Your task to perform on an android device: install app "NewsBreak: Local News & Alerts" Image 0: 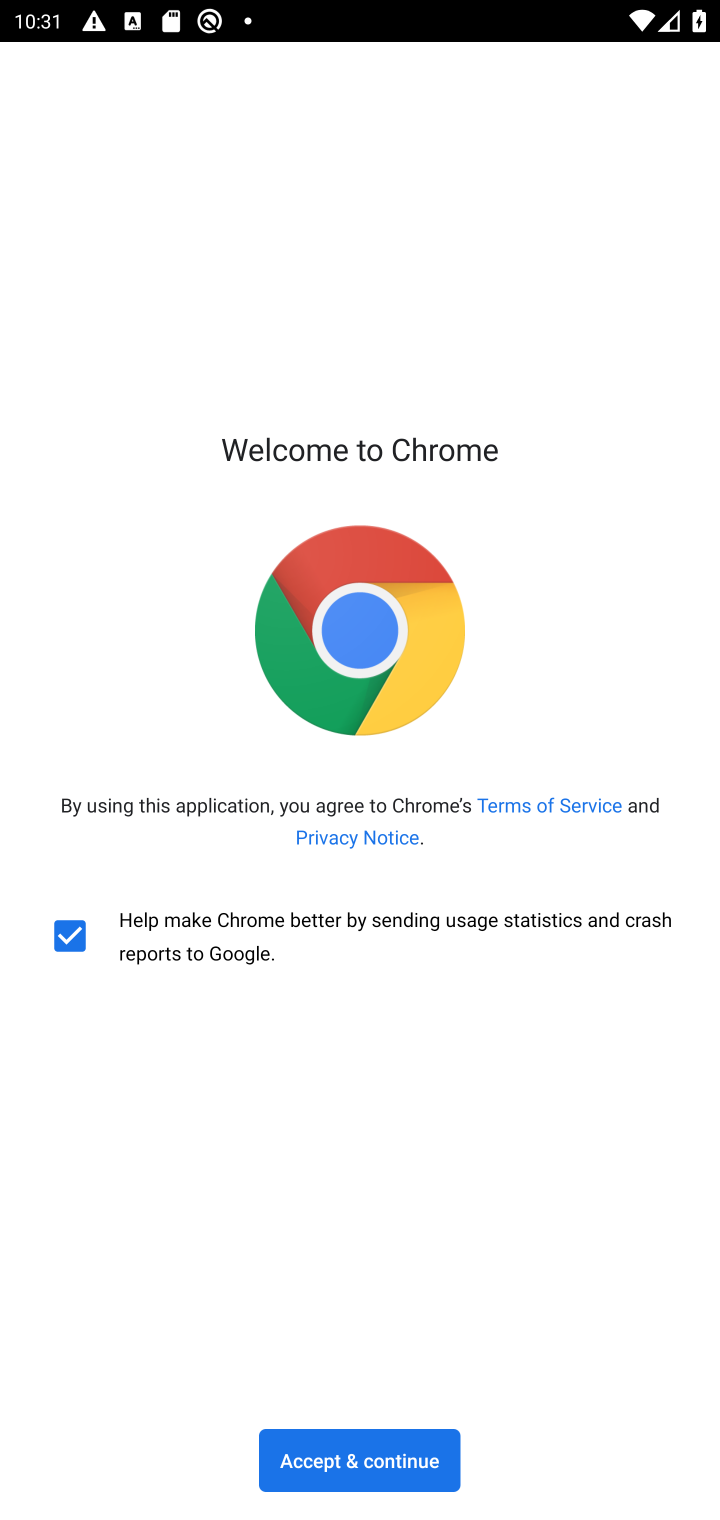
Step 0: press home button
Your task to perform on an android device: install app "NewsBreak: Local News & Alerts" Image 1: 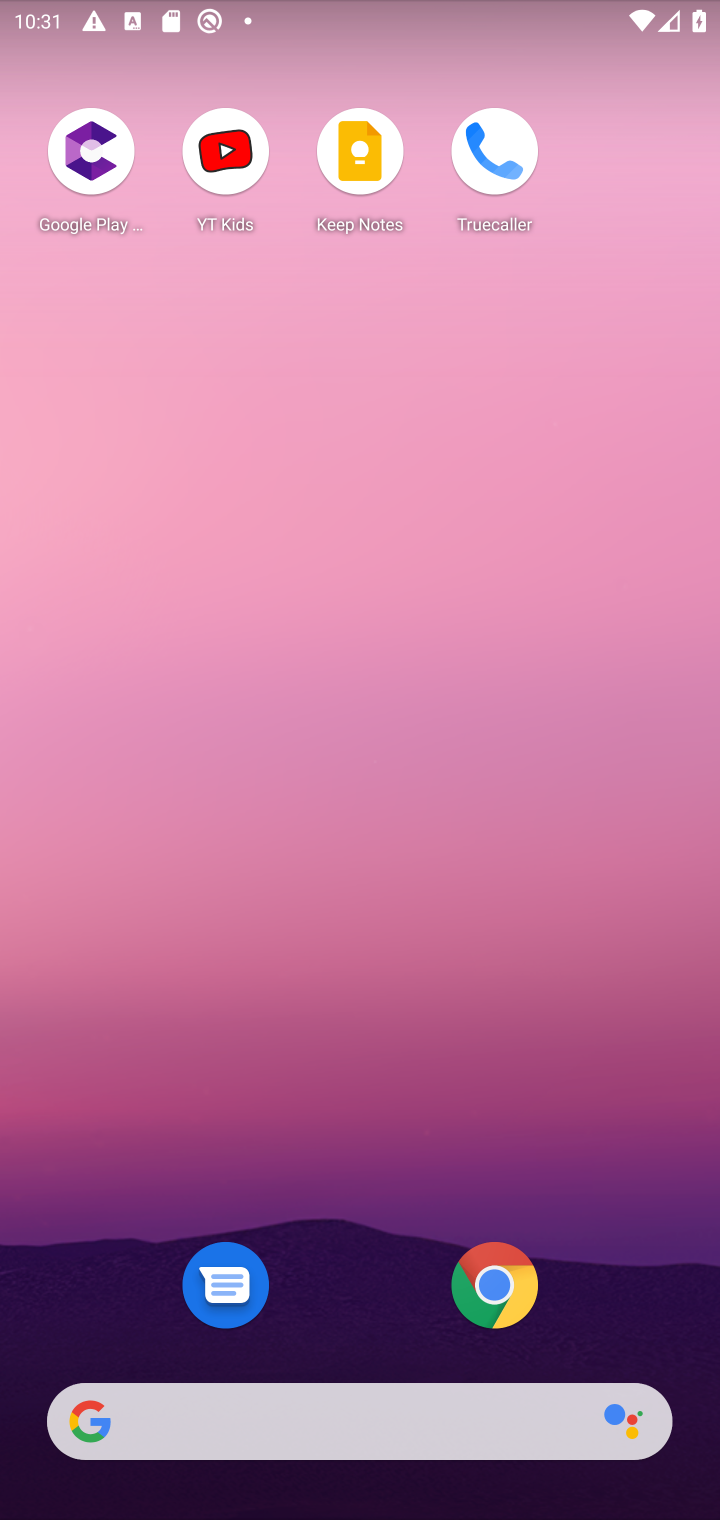
Step 1: drag from (285, 1426) to (386, 174)
Your task to perform on an android device: install app "NewsBreak: Local News & Alerts" Image 2: 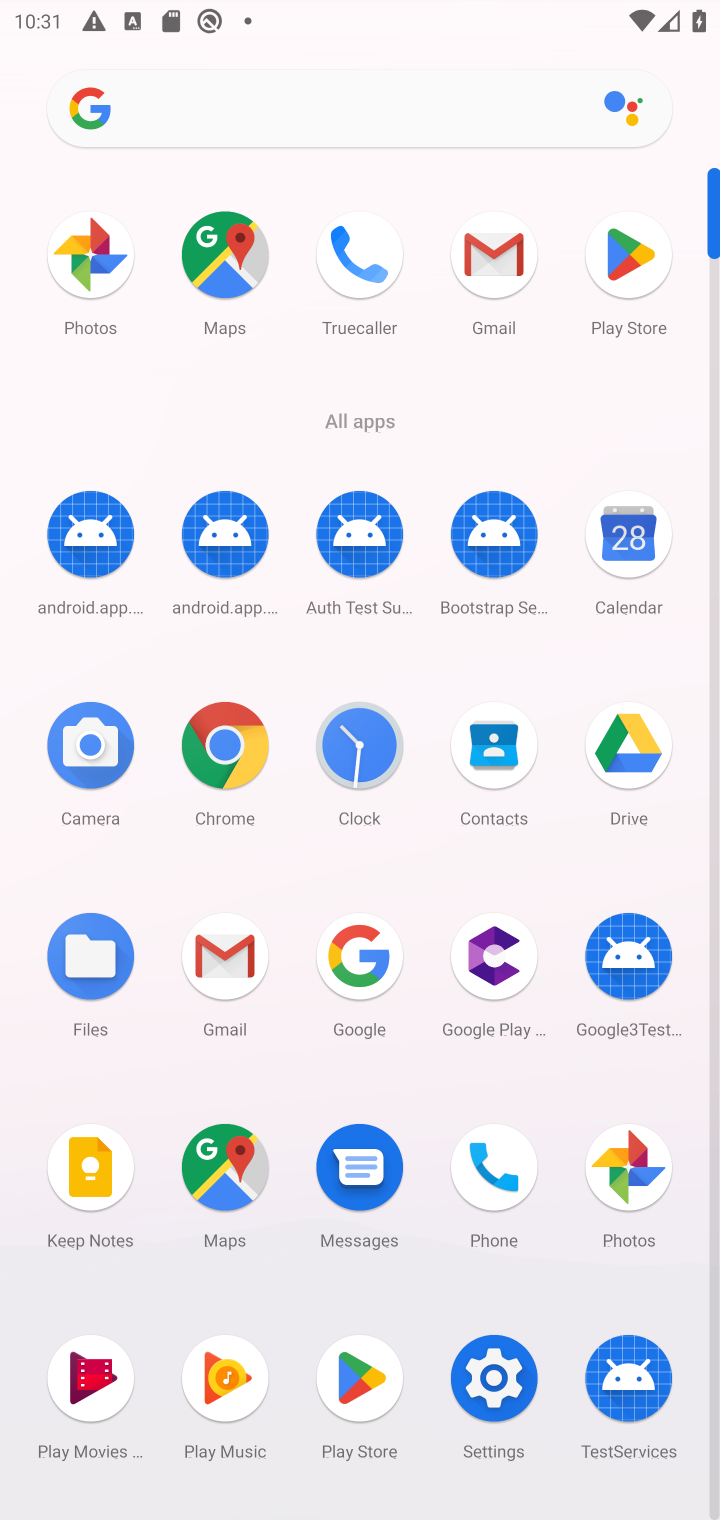
Step 2: click (620, 256)
Your task to perform on an android device: install app "NewsBreak: Local News & Alerts" Image 3: 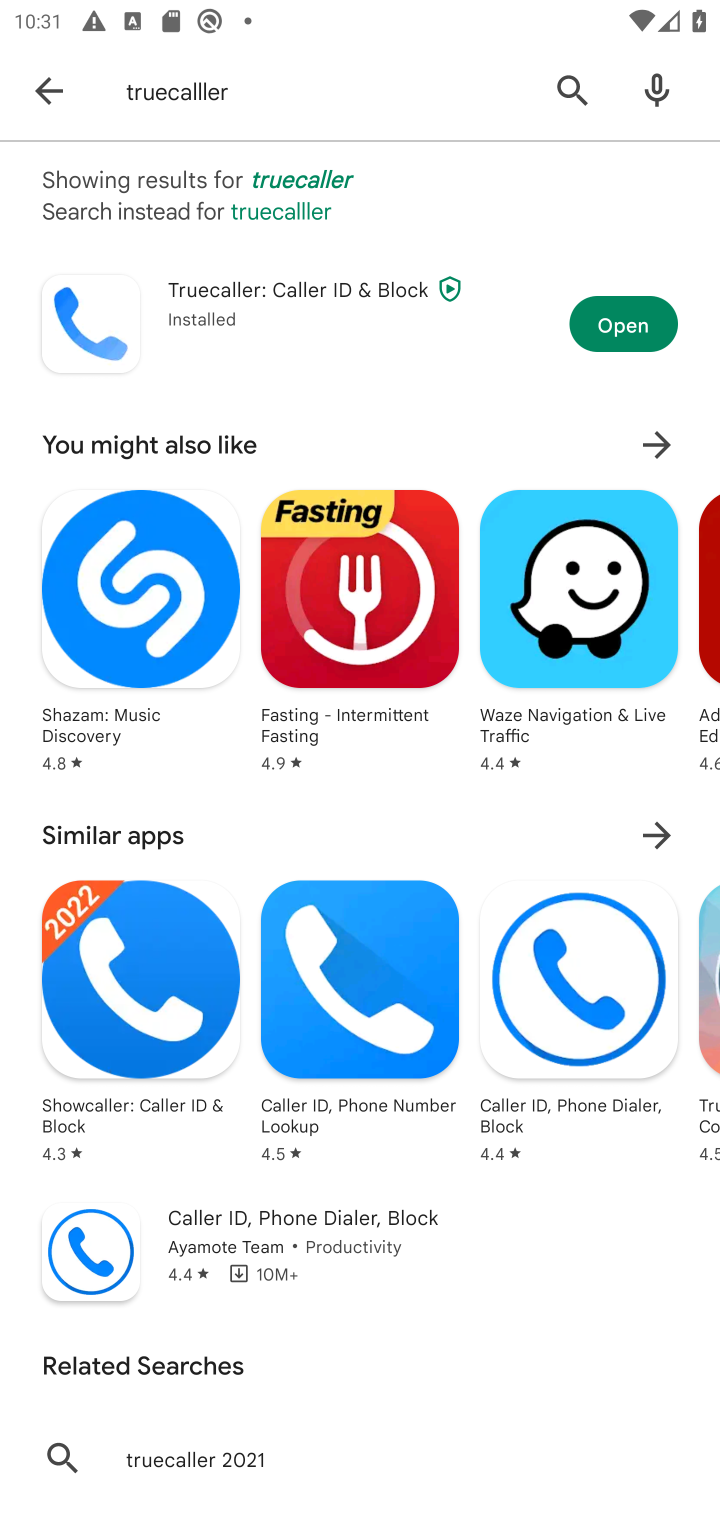
Step 3: click (403, 97)
Your task to perform on an android device: install app "NewsBreak: Local News & Alerts" Image 4: 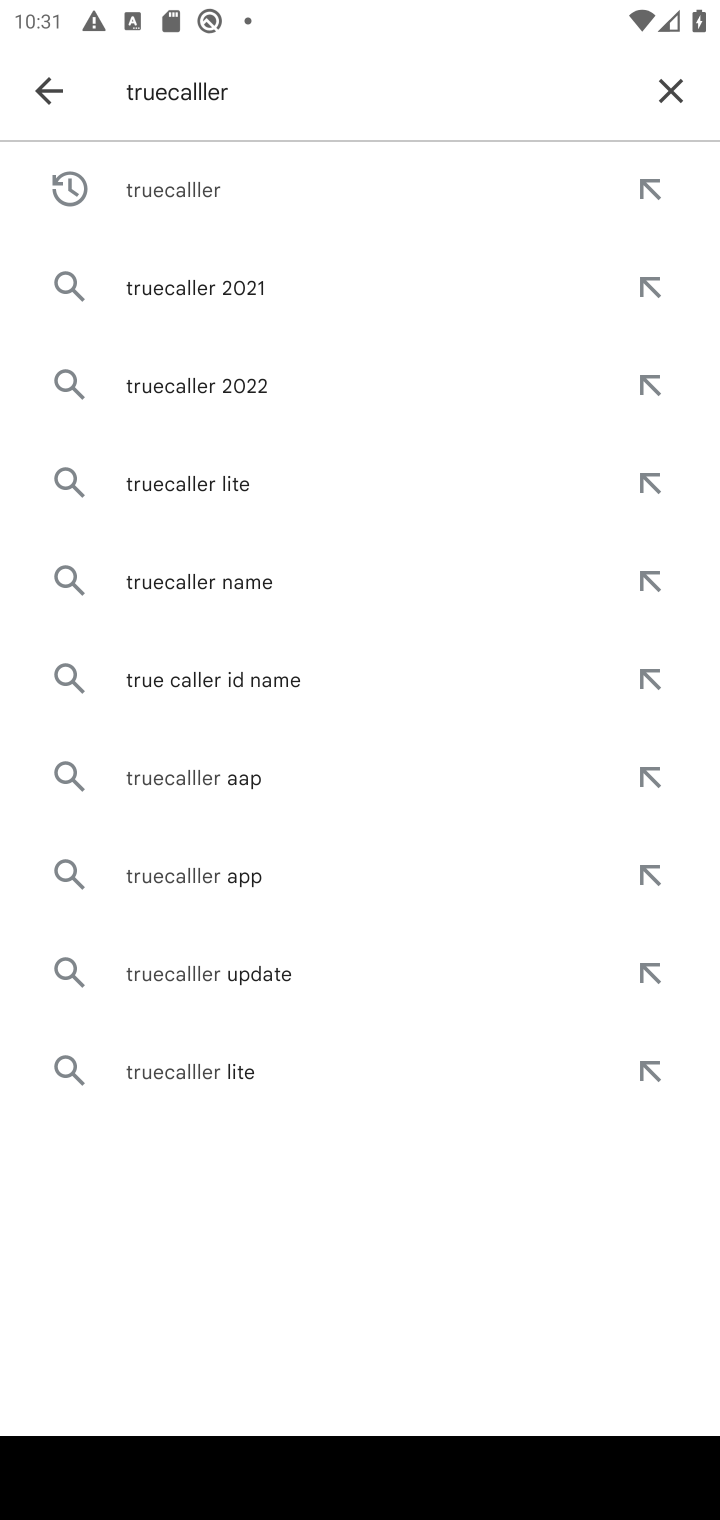
Step 4: click (673, 103)
Your task to perform on an android device: install app "NewsBreak: Local News & Alerts" Image 5: 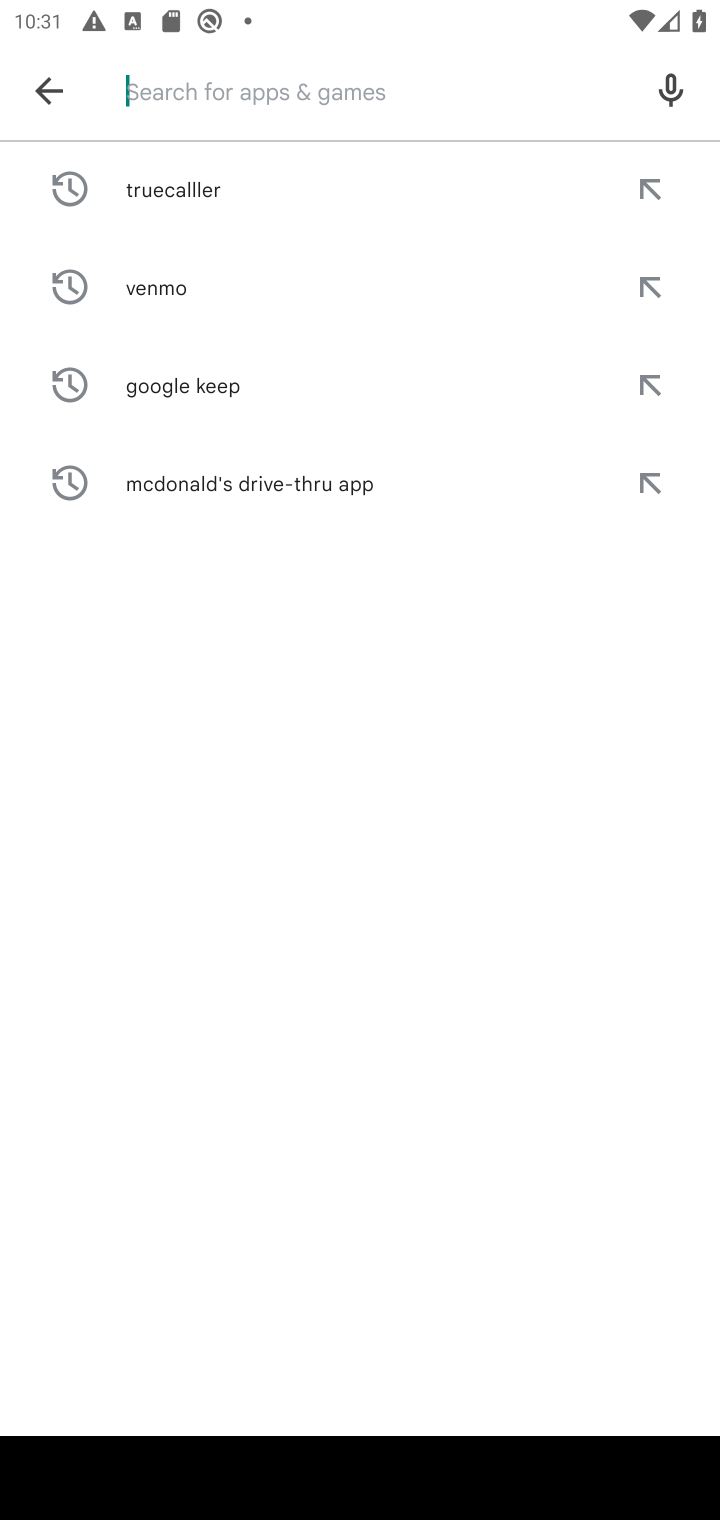
Step 5: type "NewsBreak: Local News & Alerts"
Your task to perform on an android device: install app "NewsBreak: Local News & Alerts" Image 6: 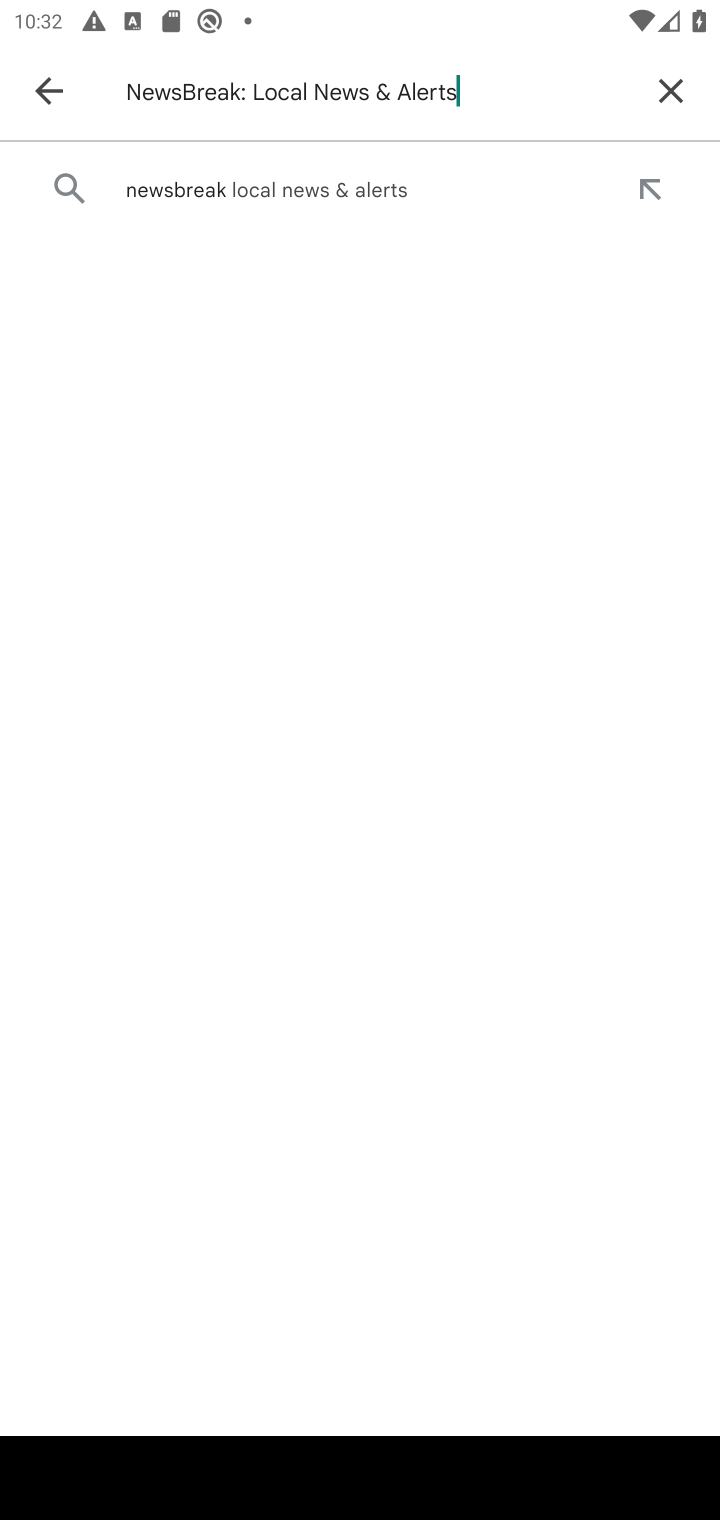
Step 6: click (367, 185)
Your task to perform on an android device: install app "NewsBreak: Local News & Alerts" Image 7: 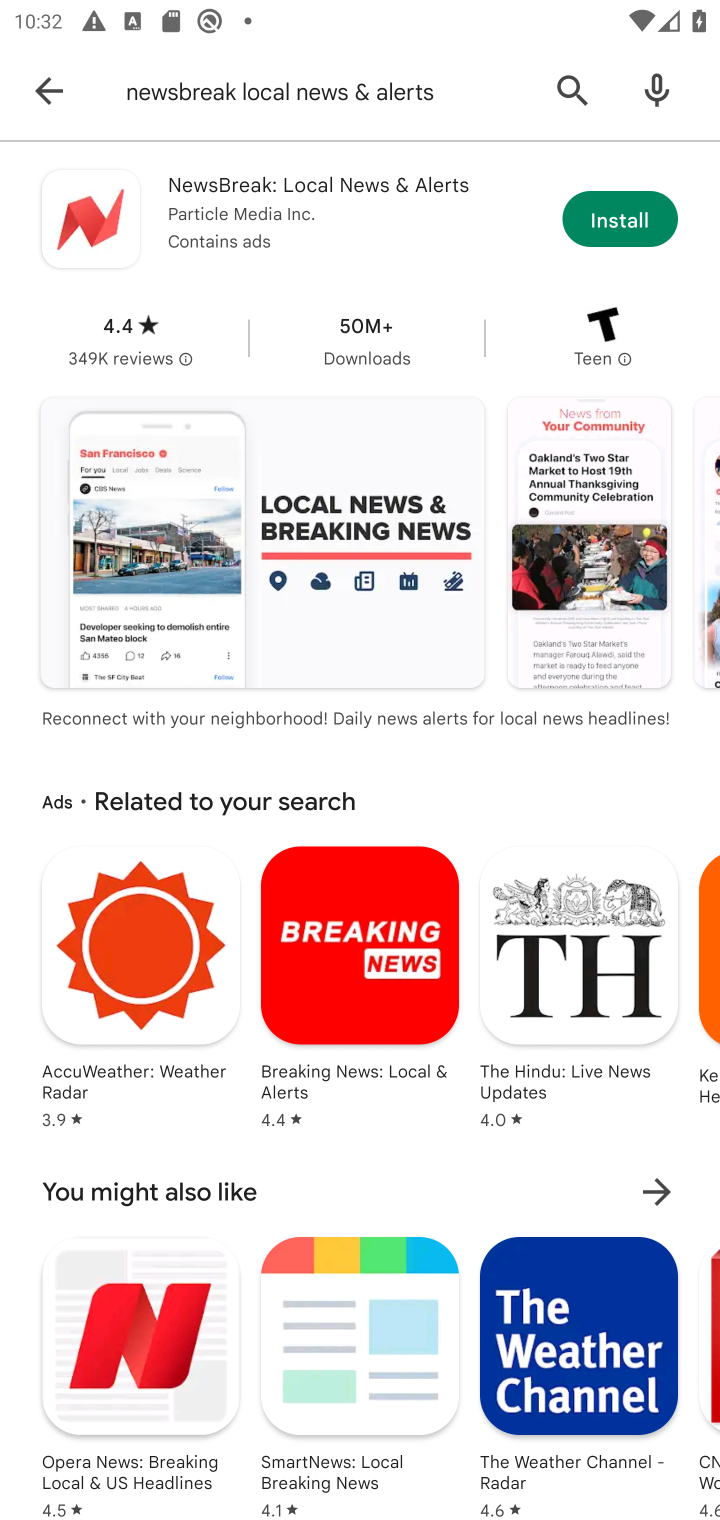
Step 7: click (621, 229)
Your task to perform on an android device: install app "NewsBreak: Local News & Alerts" Image 8: 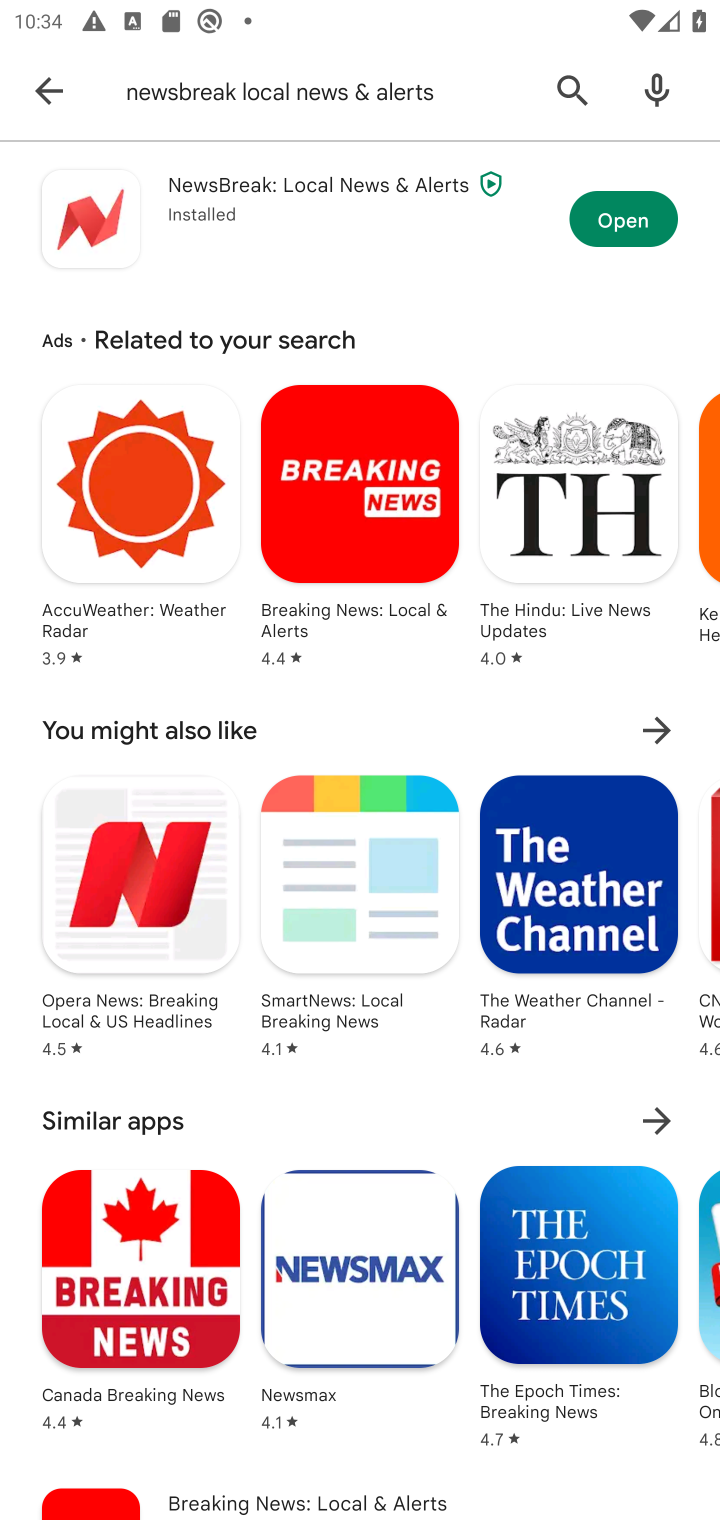
Step 8: task complete